Your task to perform on an android device: toggle pop-ups in chrome Image 0: 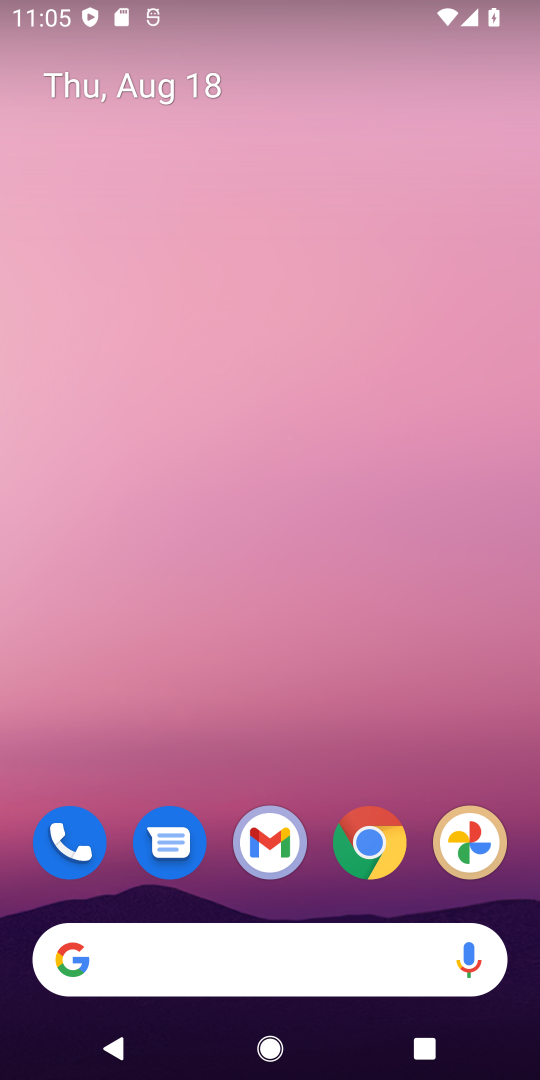
Step 0: click (362, 840)
Your task to perform on an android device: toggle pop-ups in chrome Image 1: 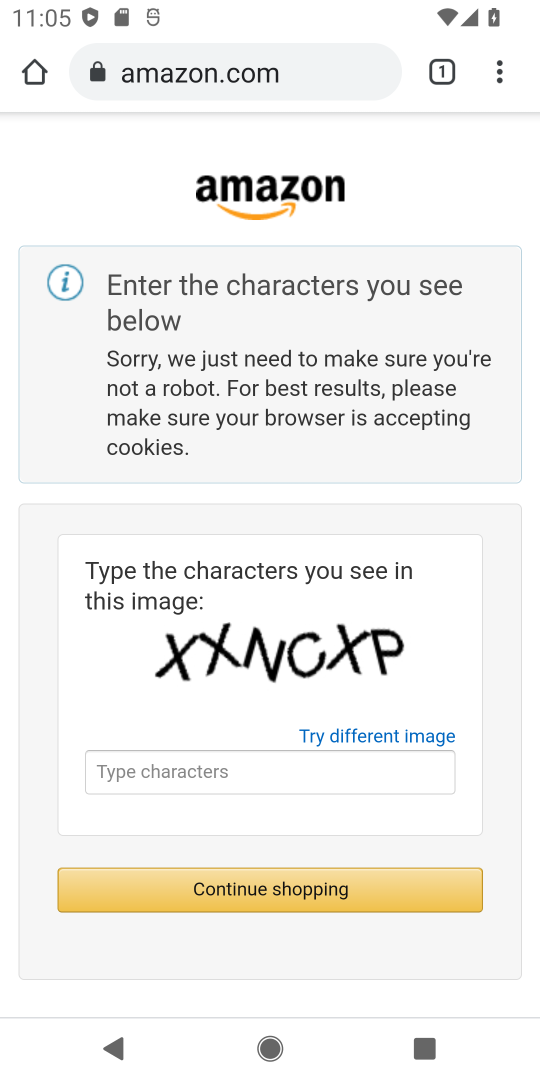
Step 1: click (513, 77)
Your task to perform on an android device: toggle pop-ups in chrome Image 2: 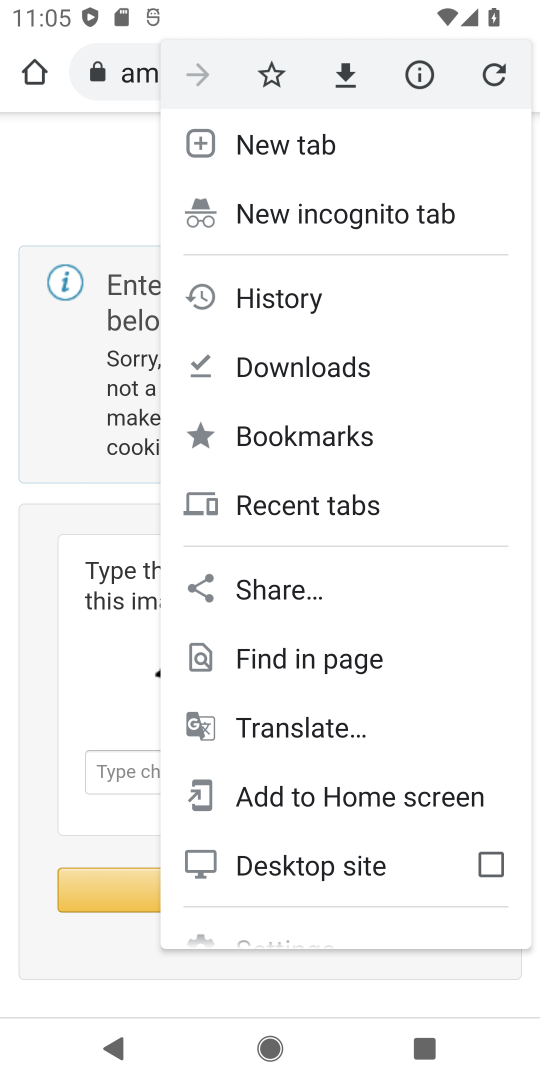
Step 2: drag from (317, 886) to (358, 202)
Your task to perform on an android device: toggle pop-ups in chrome Image 3: 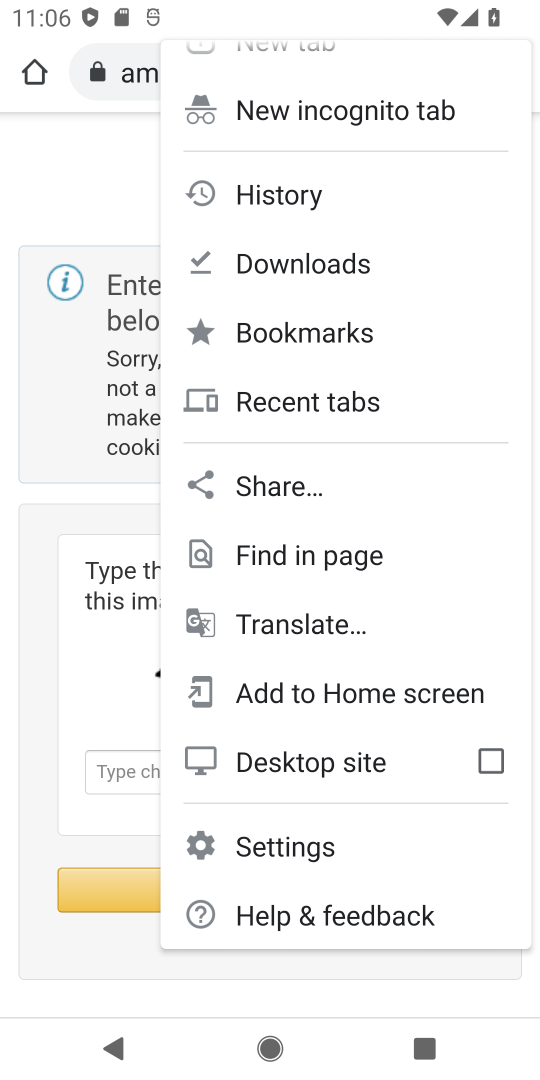
Step 3: click (298, 864)
Your task to perform on an android device: toggle pop-ups in chrome Image 4: 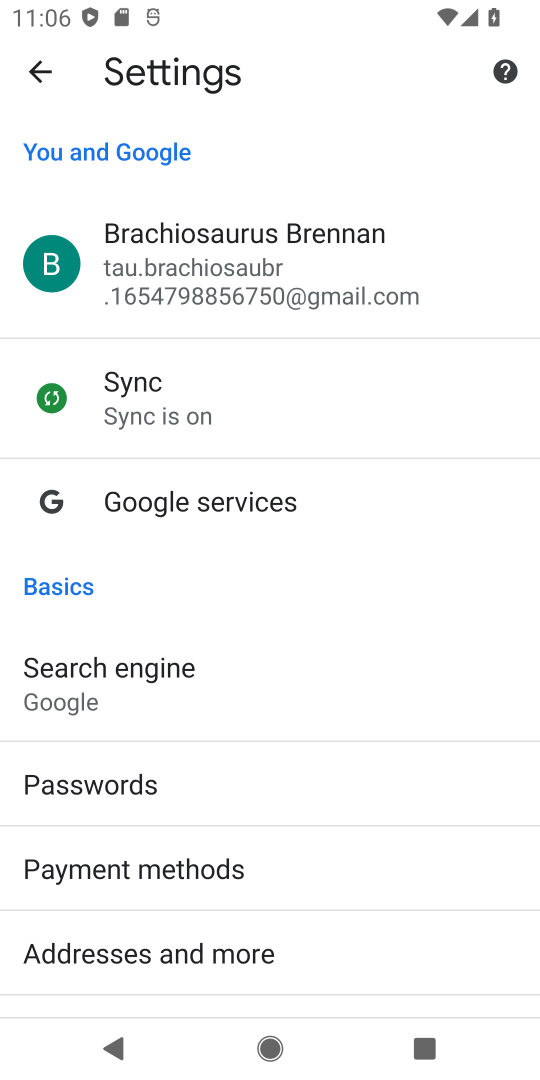
Step 4: drag from (298, 864) to (283, 179)
Your task to perform on an android device: toggle pop-ups in chrome Image 5: 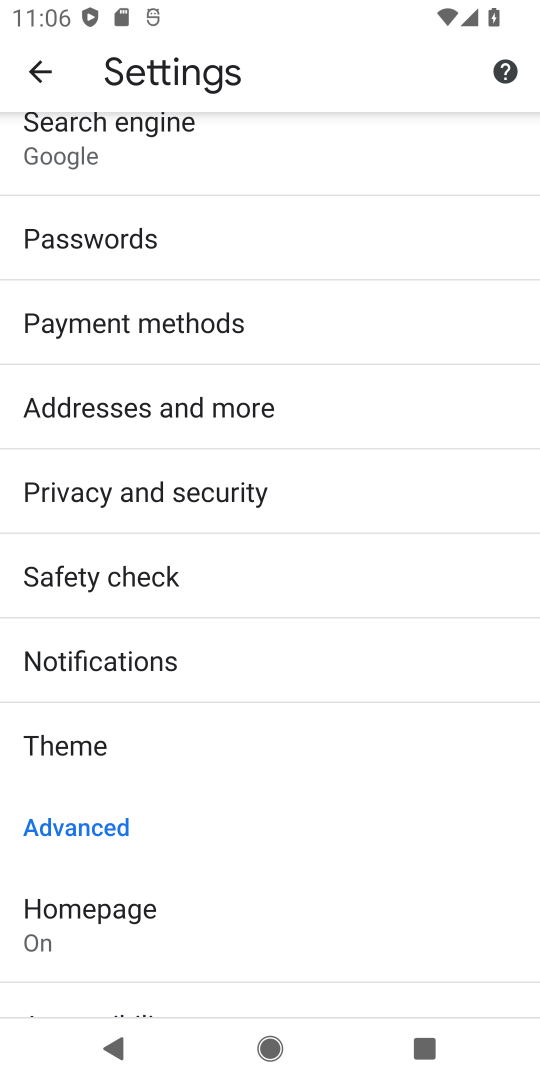
Step 5: drag from (169, 921) to (271, 158)
Your task to perform on an android device: toggle pop-ups in chrome Image 6: 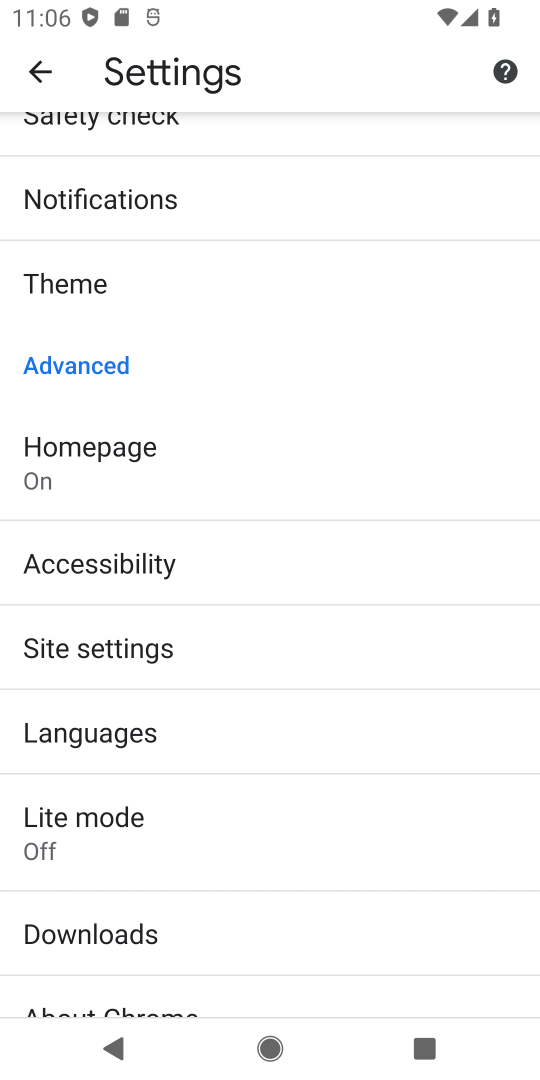
Step 6: click (155, 657)
Your task to perform on an android device: toggle pop-ups in chrome Image 7: 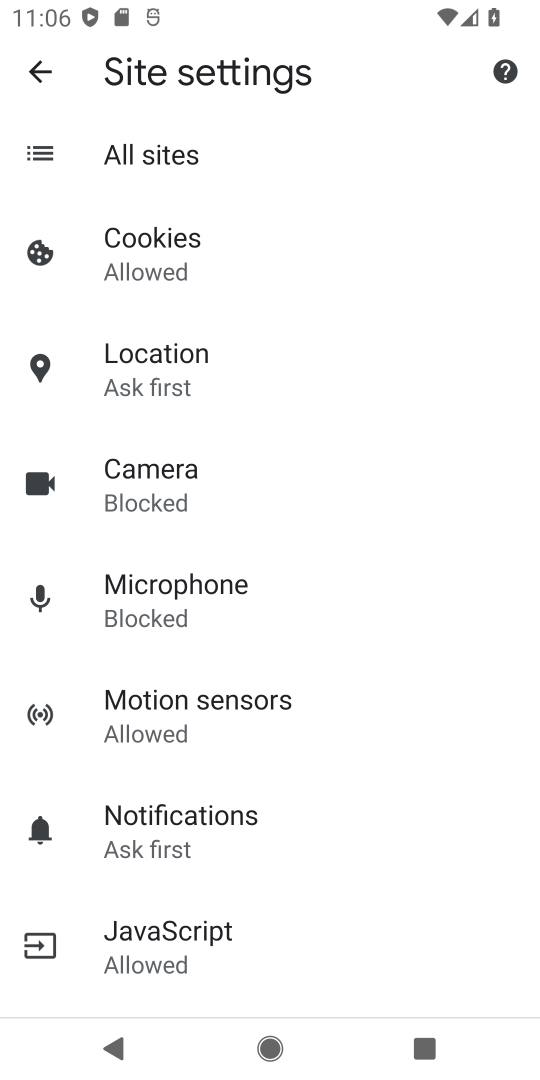
Step 7: drag from (246, 561) to (262, 214)
Your task to perform on an android device: toggle pop-ups in chrome Image 8: 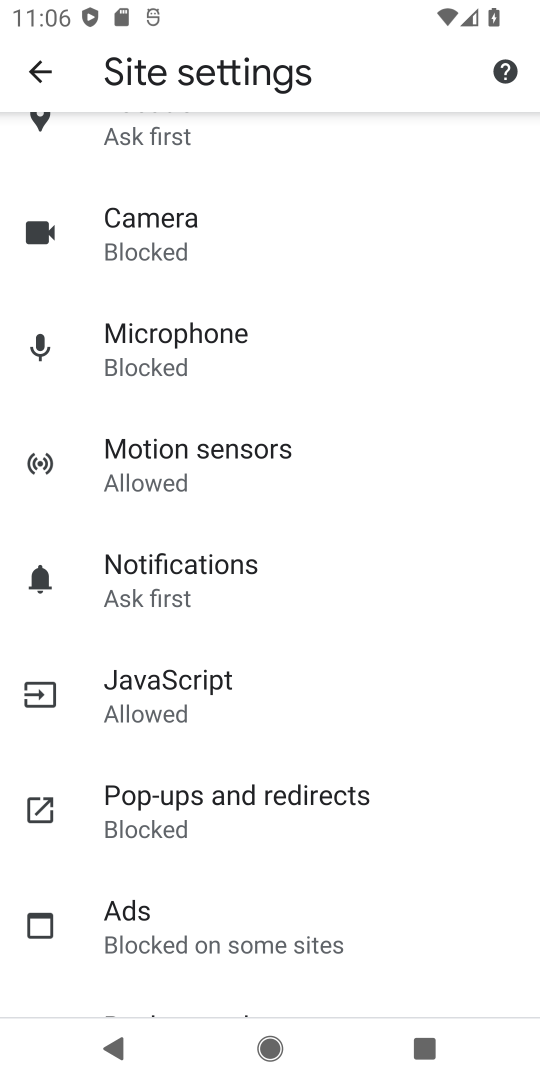
Step 8: click (204, 812)
Your task to perform on an android device: toggle pop-ups in chrome Image 9: 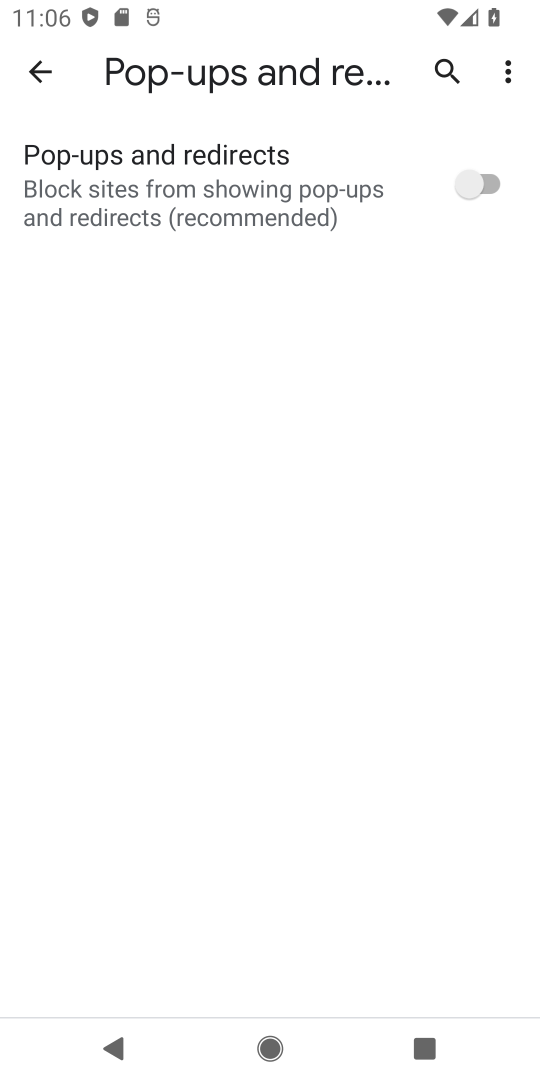
Step 9: click (486, 168)
Your task to perform on an android device: toggle pop-ups in chrome Image 10: 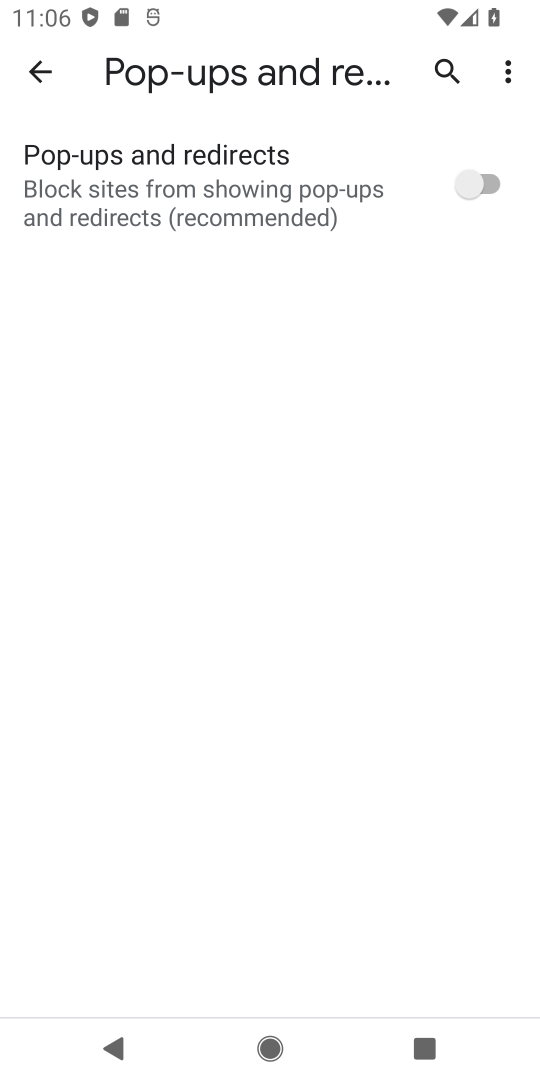
Step 10: click (486, 168)
Your task to perform on an android device: toggle pop-ups in chrome Image 11: 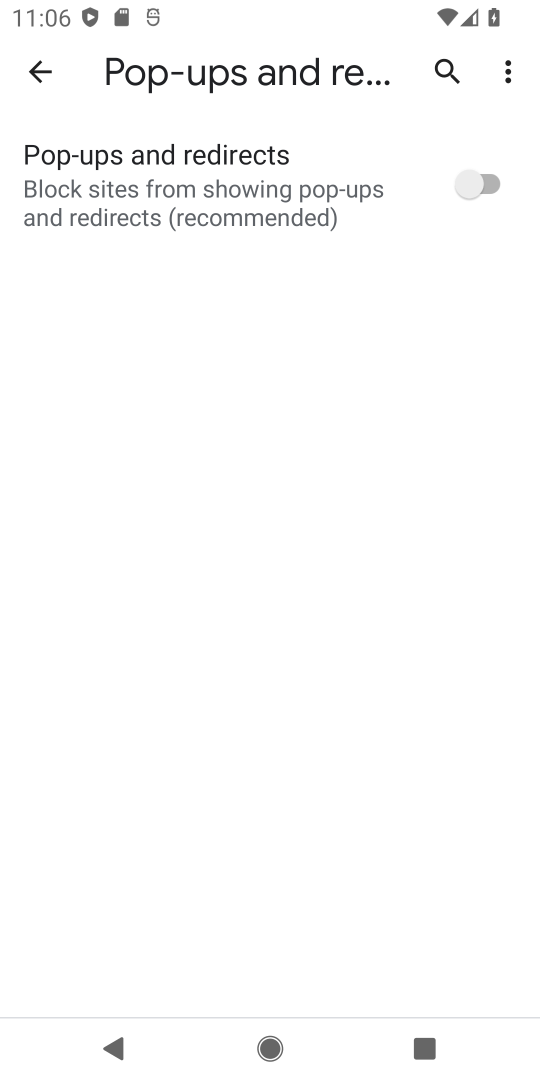
Step 11: task complete